Your task to perform on an android device: turn on sleep mode Image 0: 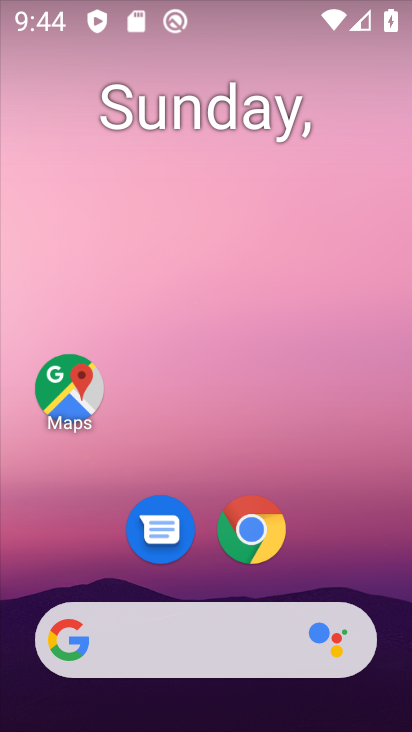
Step 0: drag from (71, 610) to (196, 154)
Your task to perform on an android device: turn on sleep mode Image 1: 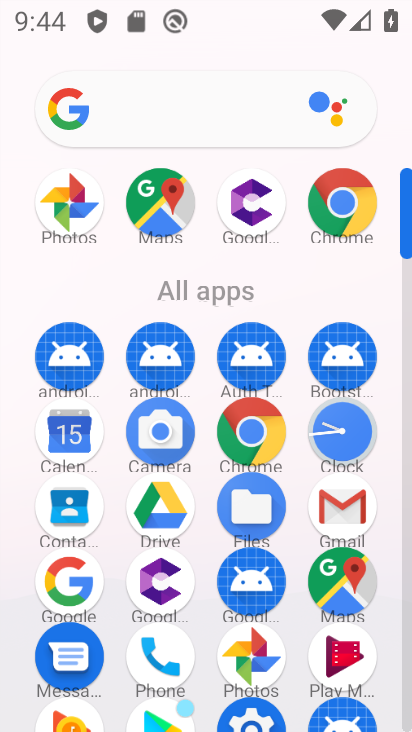
Step 1: drag from (141, 592) to (269, 354)
Your task to perform on an android device: turn on sleep mode Image 2: 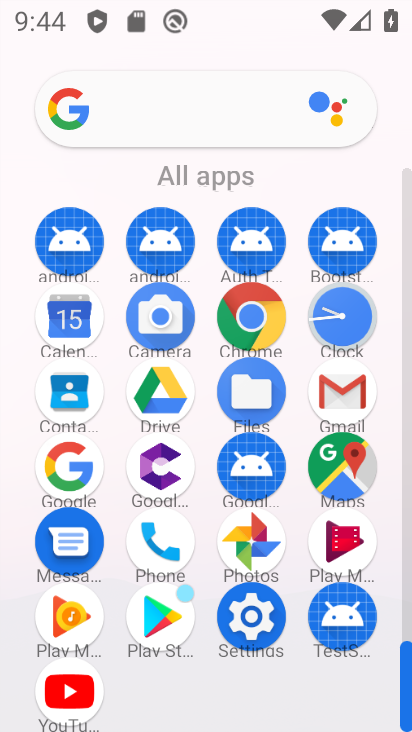
Step 2: click (262, 626)
Your task to perform on an android device: turn on sleep mode Image 3: 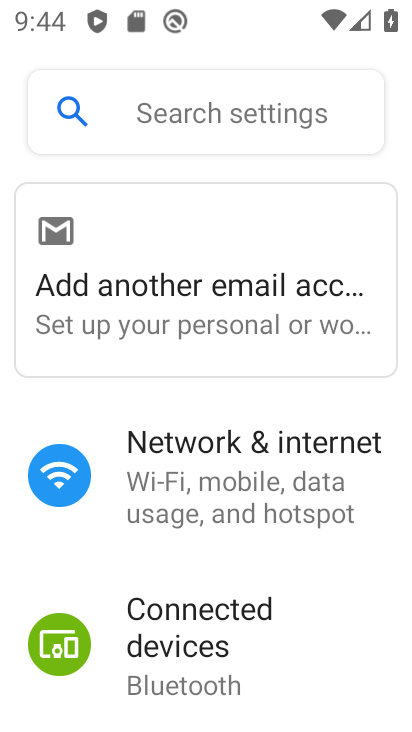
Step 3: drag from (210, 627) to (411, 275)
Your task to perform on an android device: turn on sleep mode Image 4: 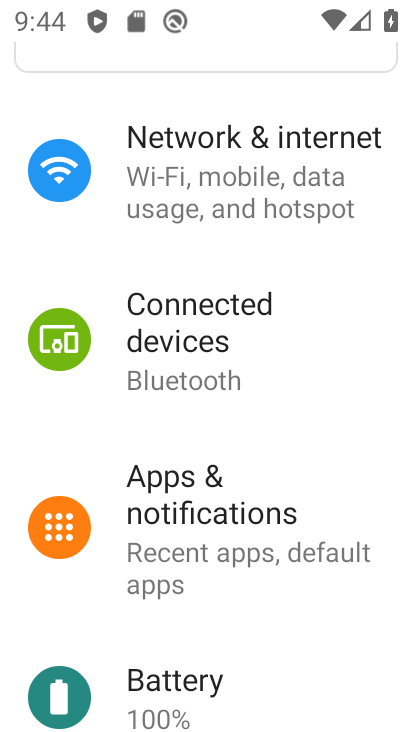
Step 4: drag from (278, 613) to (411, 258)
Your task to perform on an android device: turn on sleep mode Image 5: 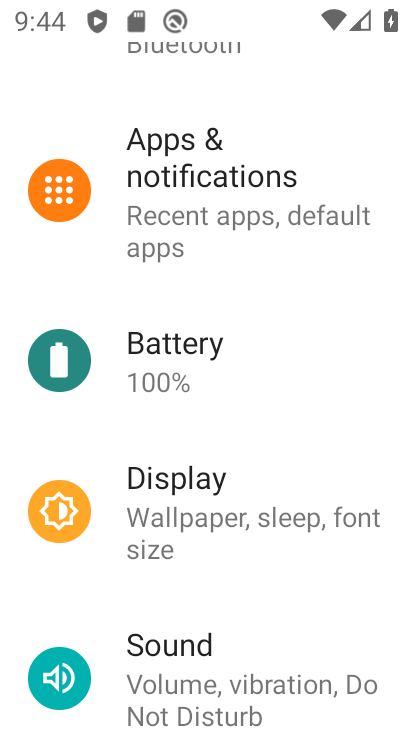
Step 5: click (215, 536)
Your task to perform on an android device: turn on sleep mode Image 6: 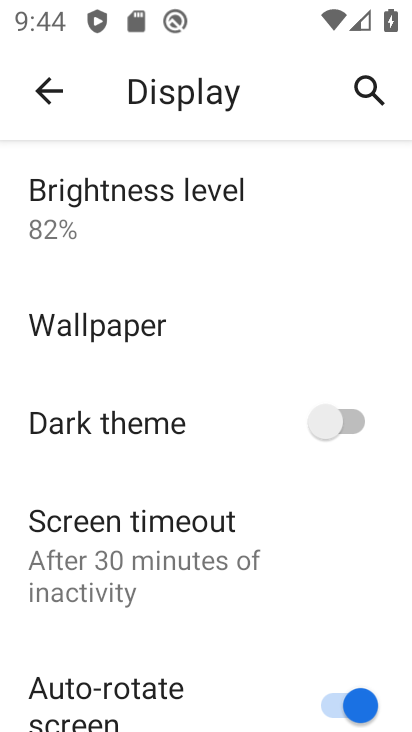
Step 6: drag from (148, 581) to (307, 207)
Your task to perform on an android device: turn on sleep mode Image 7: 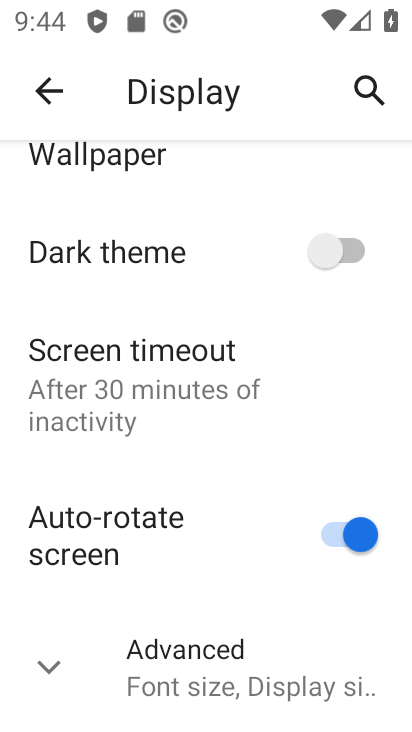
Step 7: click (193, 662)
Your task to perform on an android device: turn on sleep mode Image 8: 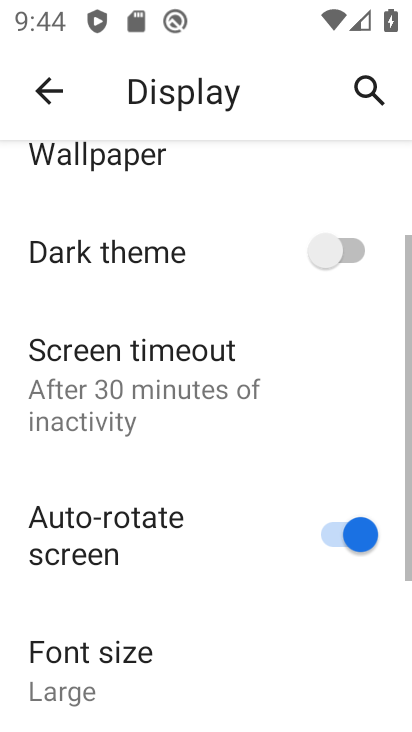
Step 8: task complete